Your task to perform on an android device: open app "Life360: Find Family & Friends" Image 0: 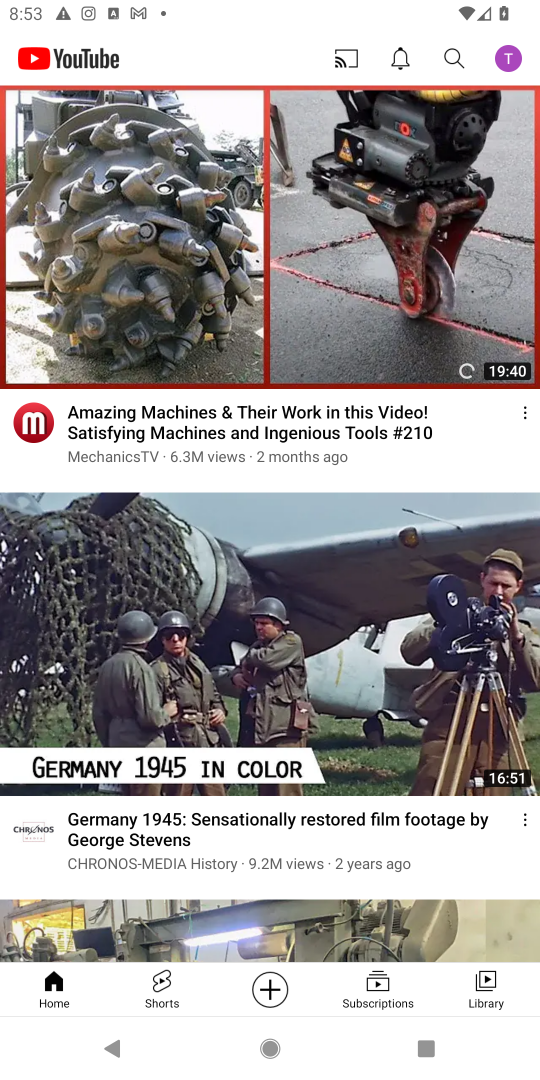
Step 0: press home button
Your task to perform on an android device: open app "Life360: Find Family & Friends" Image 1: 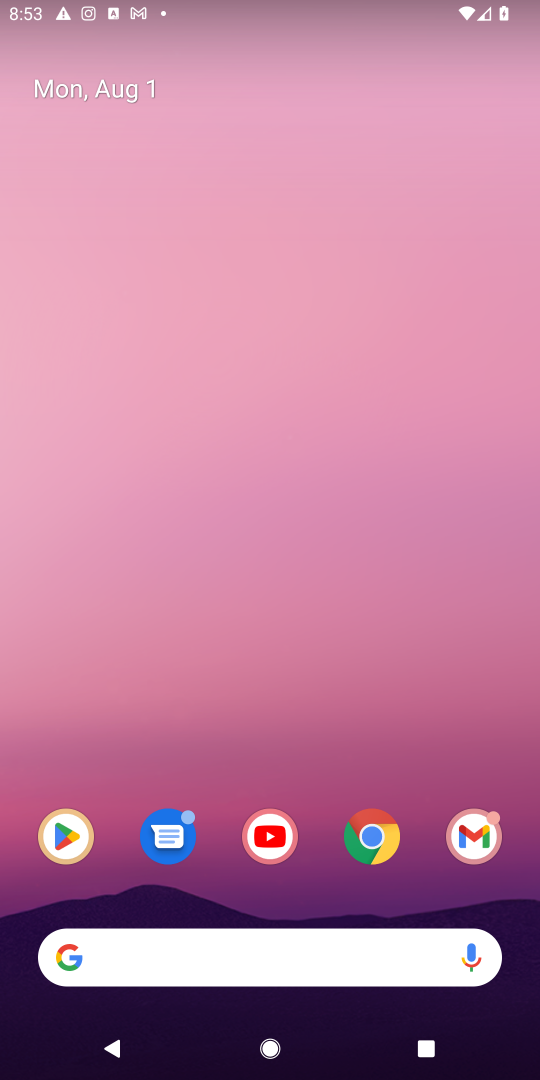
Step 1: click (70, 831)
Your task to perform on an android device: open app "Life360: Find Family & Friends" Image 2: 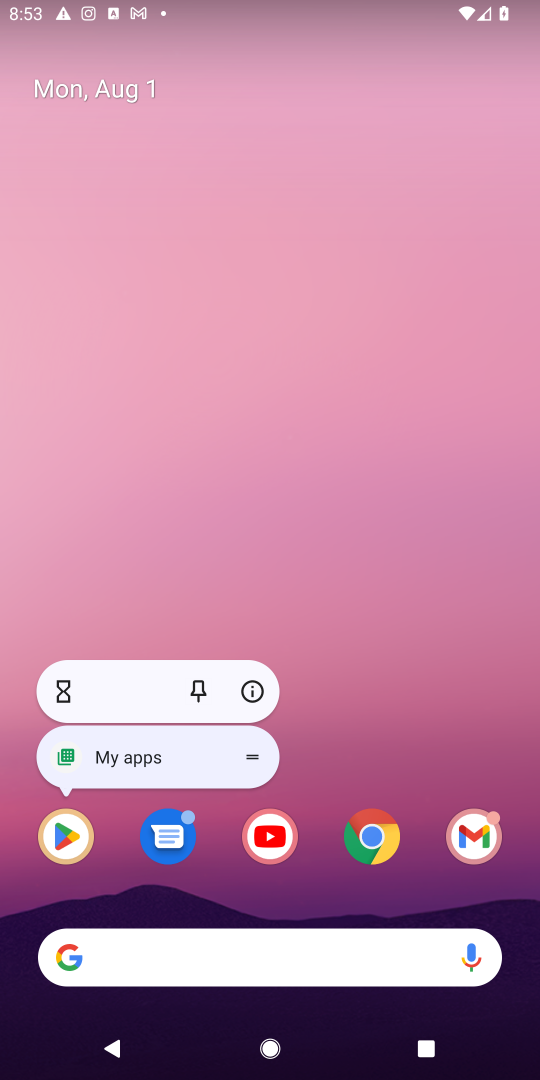
Step 2: click (65, 840)
Your task to perform on an android device: open app "Life360: Find Family & Friends" Image 3: 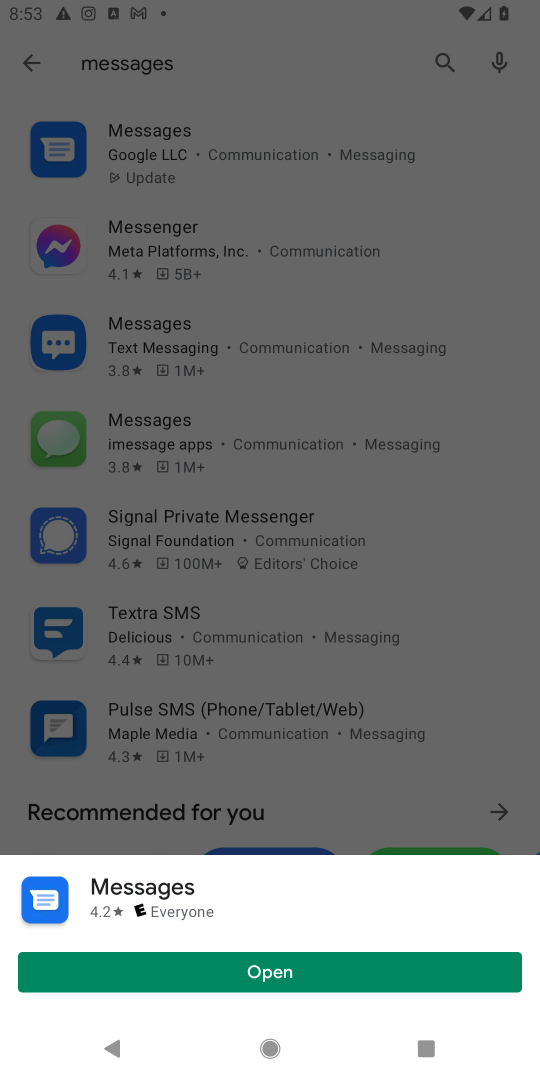
Step 3: click (450, 67)
Your task to perform on an android device: open app "Life360: Find Family & Friends" Image 4: 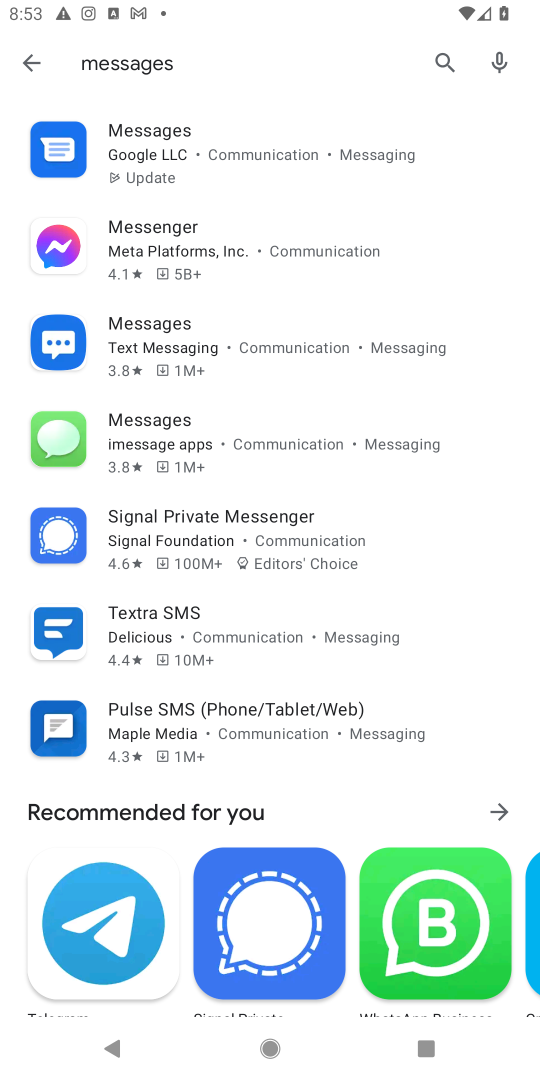
Step 4: click (439, 59)
Your task to perform on an android device: open app "Life360: Find Family & Friends" Image 5: 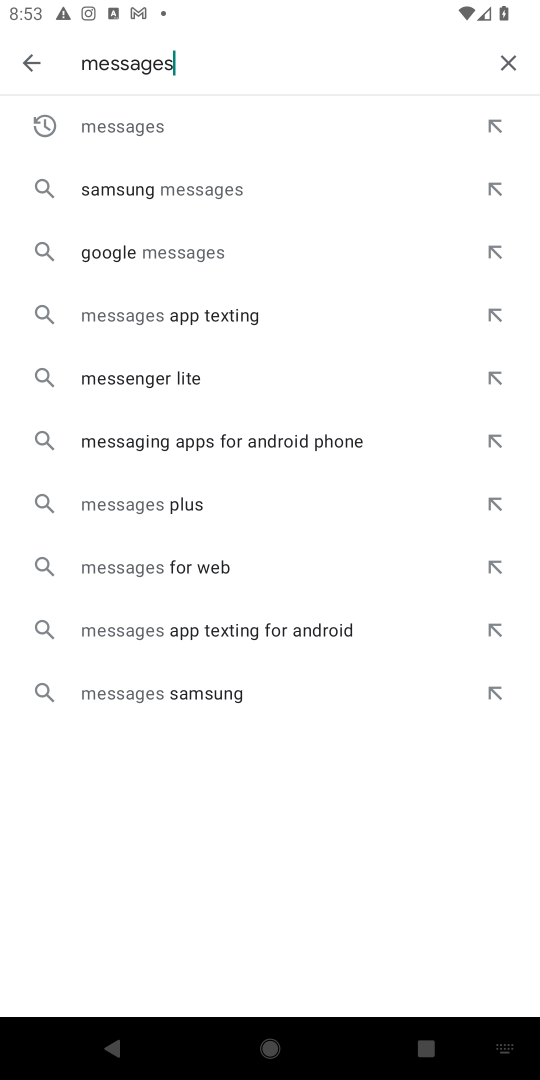
Step 5: click (515, 50)
Your task to perform on an android device: open app "Life360: Find Family & Friends" Image 6: 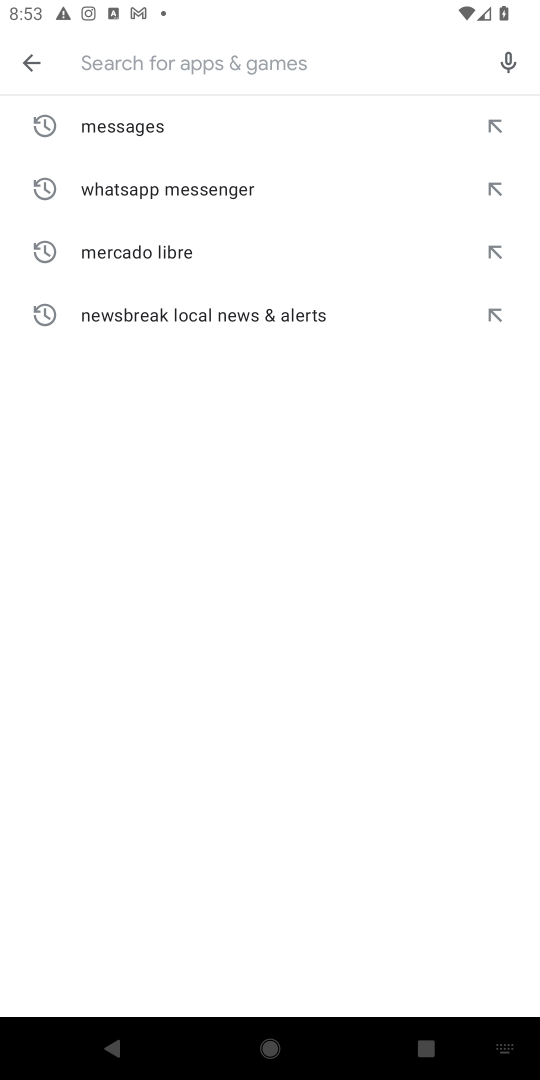
Step 6: type "Life360: Find Family & Friends"
Your task to perform on an android device: open app "Life360: Find Family & Friends" Image 7: 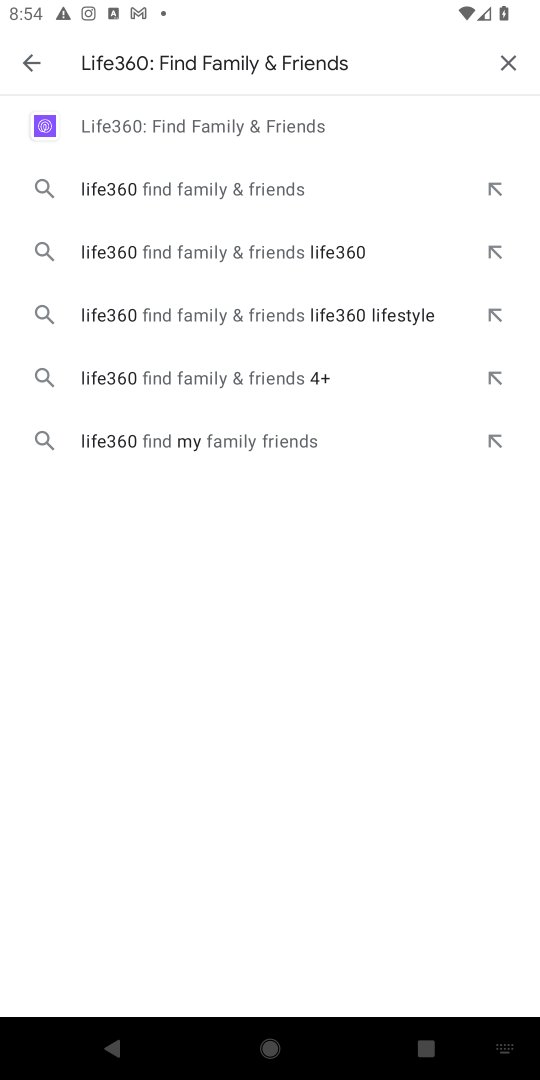
Step 7: click (239, 124)
Your task to perform on an android device: open app "Life360: Find Family & Friends" Image 8: 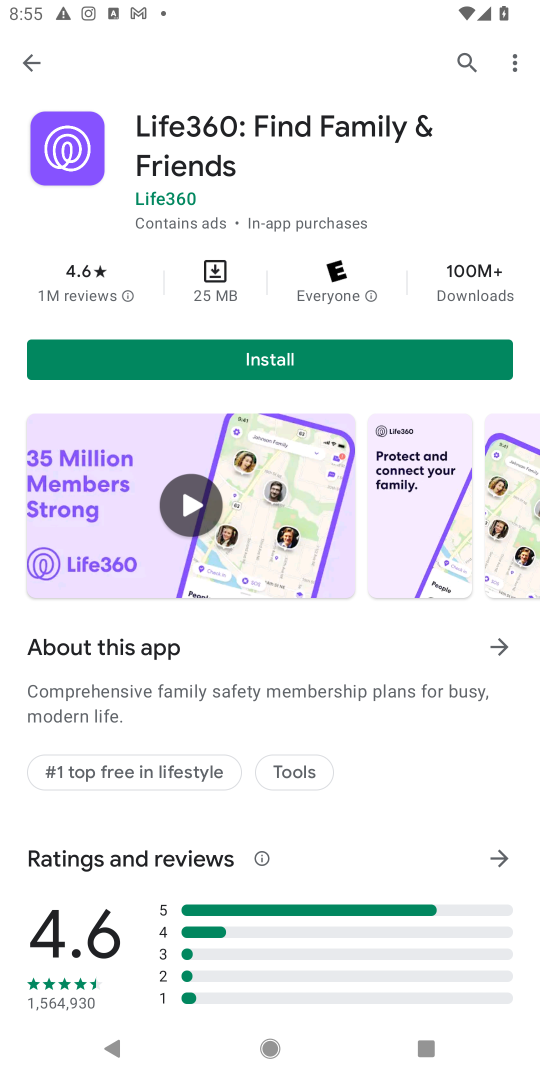
Step 8: task complete